Your task to perform on an android device: open a bookmark in the chrome app Image 0: 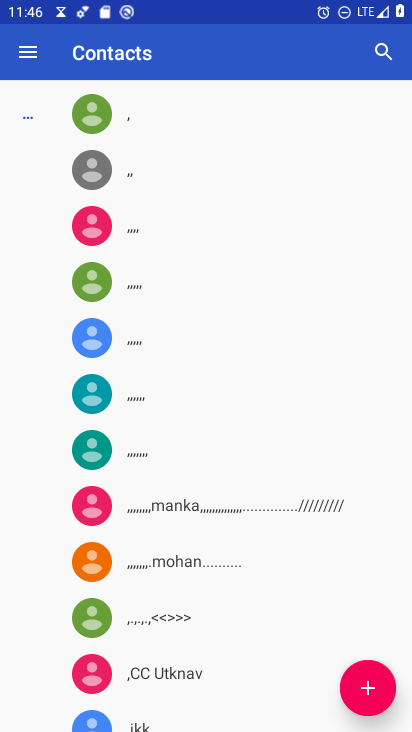
Step 0: press home button
Your task to perform on an android device: open a bookmark in the chrome app Image 1: 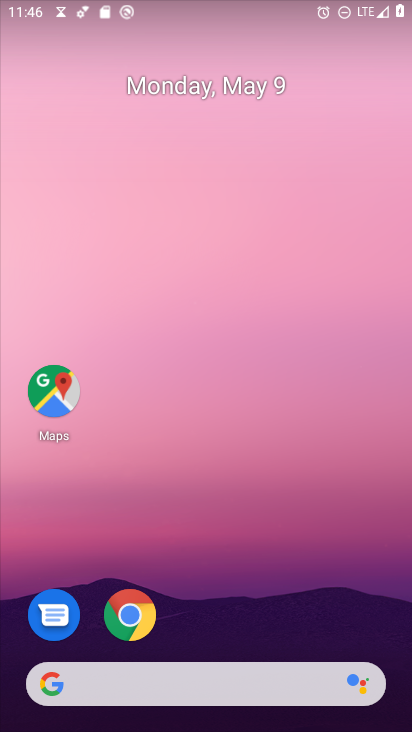
Step 1: click (131, 618)
Your task to perform on an android device: open a bookmark in the chrome app Image 2: 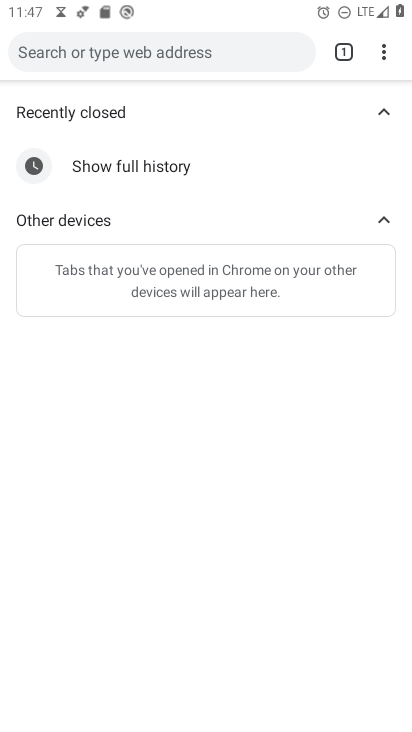
Step 2: click (385, 55)
Your task to perform on an android device: open a bookmark in the chrome app Image 3: 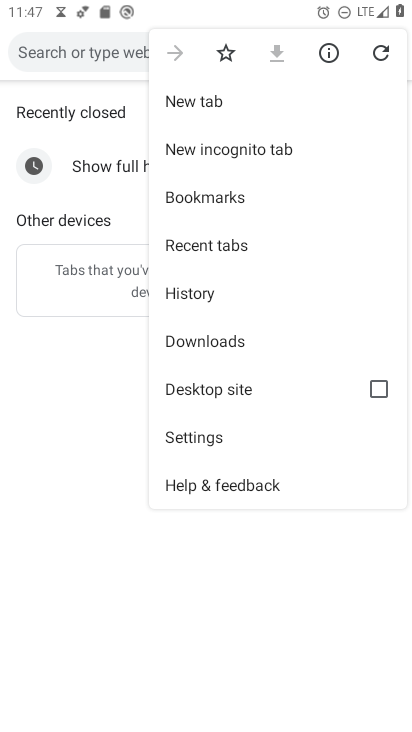
Step 3: click (210, 198)
Your task to perform on an android device: open a bookmark in the chrome app Image 4: 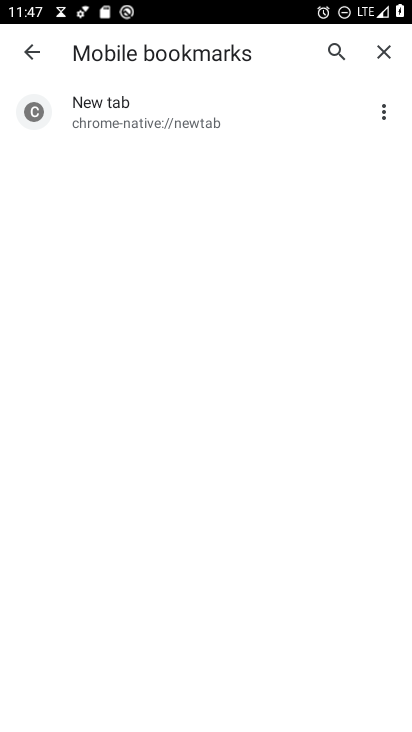
Step 4: click (114, 104)
Your task to perform on an android device: open a bookmark in the chrome app Image 5: 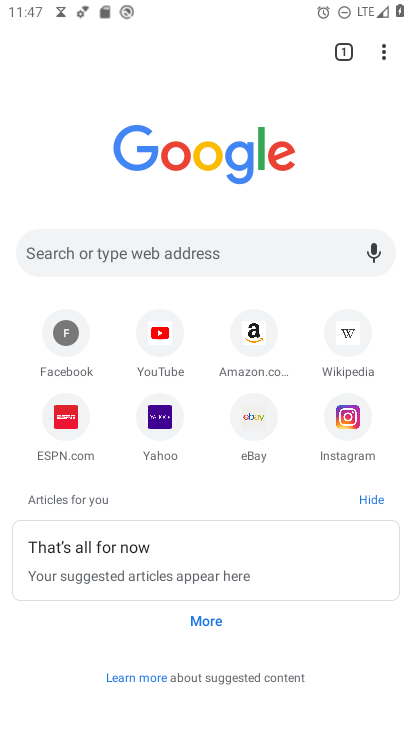
Step 5: task complete